Your task to perform on an android device: Go to network settings Image 0: 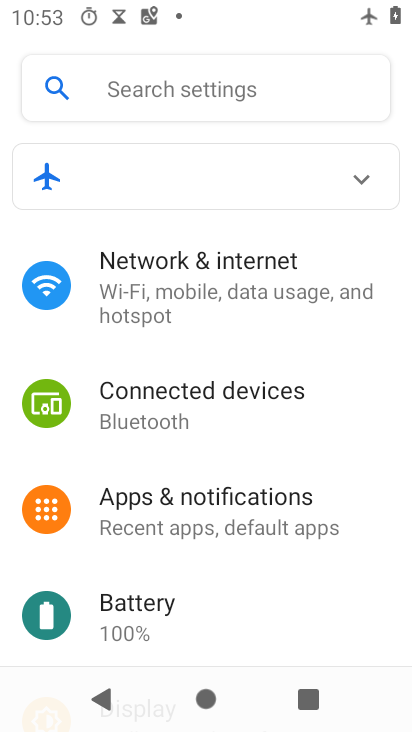
Step 0: click (235, 259)
Your task to perform on an android device: Go to network settings Image 1: 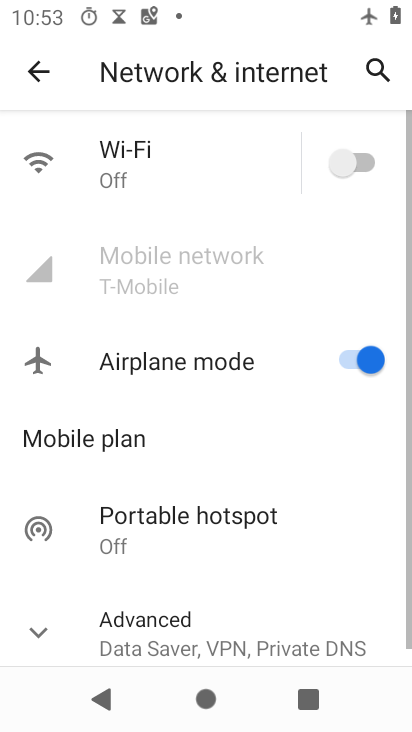
Step 1: click (167, 145)
Your task to perform on an android device: Go to network settings Image 2: 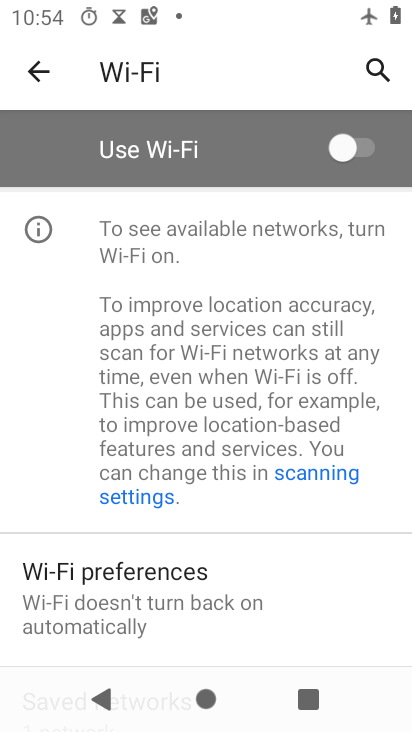
Step 2: task complete